Your task to perform on an android device: change text size in settings app Image 0: 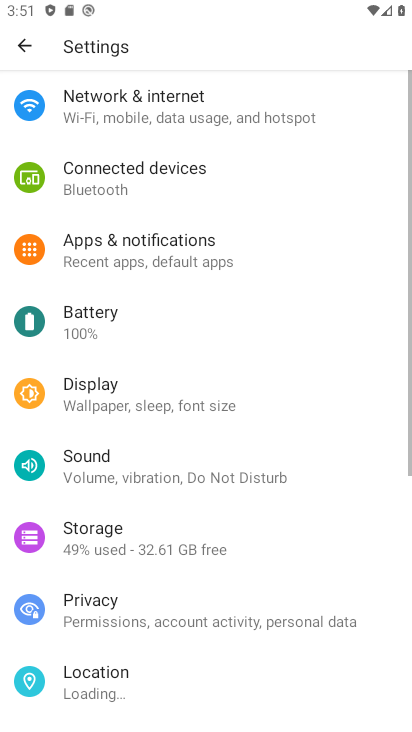
Step 0: drag from (304, 701) to (232, 176)
Your task to perform on an android device: change text size in settings app Image 1: 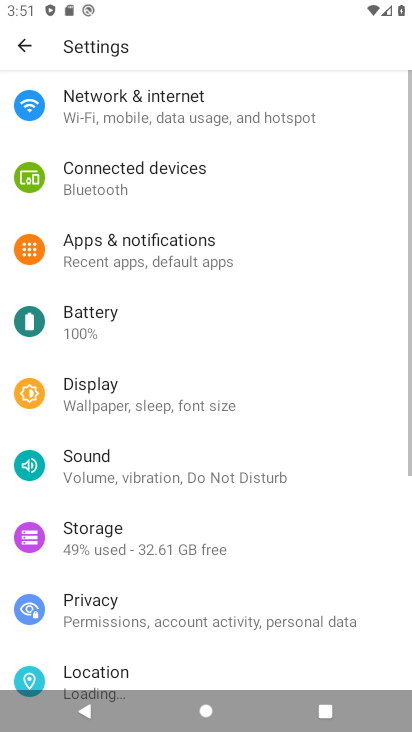
Step 1: click (16, 48)
Your task to perform on an android device: change text size in settings app Image 2: 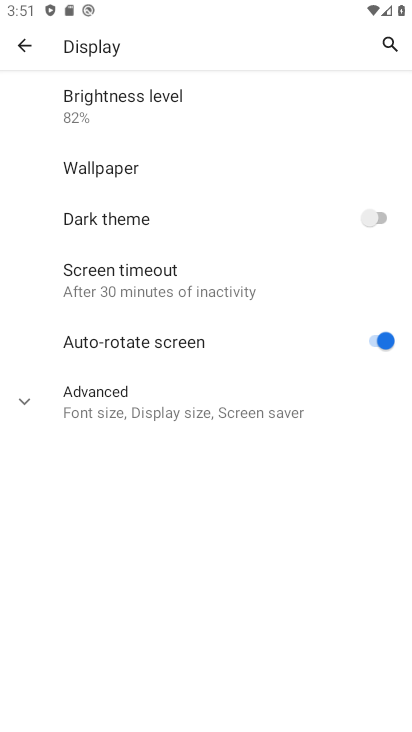
Step 2: press back button
Your task to perform on an android device: change text size in settings app Image 3: 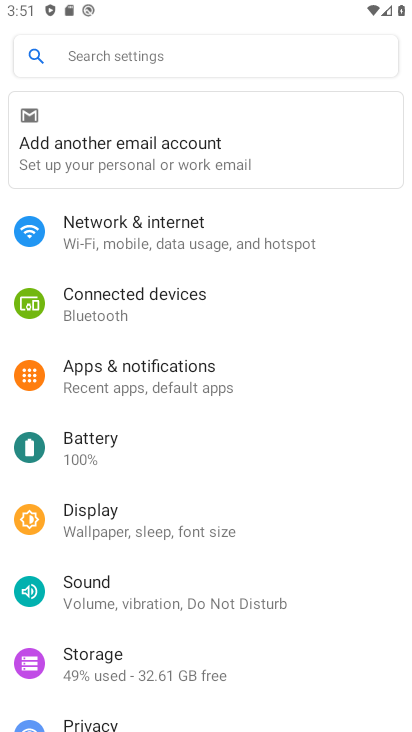
Step 3: click (21, 35)
Your task to perform on an android device: change text size in settings app Image 4: 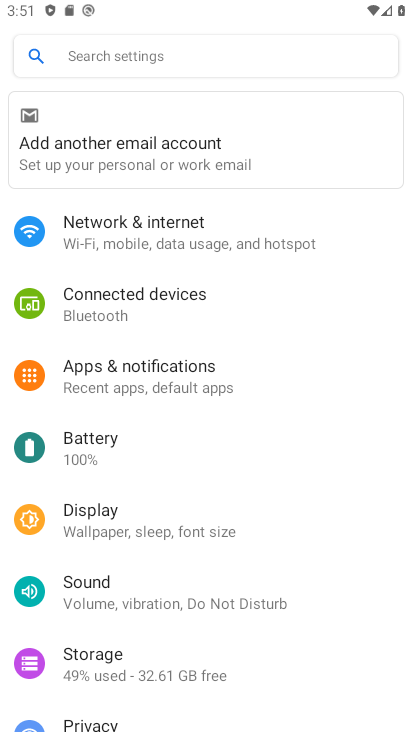
Step 4: drag from (132, 591) to (92, 258)
Your task to perform on an android device: change text size in settings app Image 5: 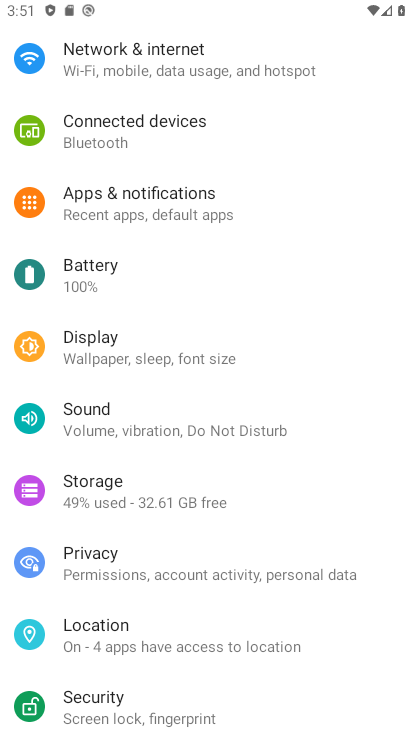
Step 5: drag from (198, 595) to (228, 299)
Your task to perform on an android device: change text size in settings app Image 6: 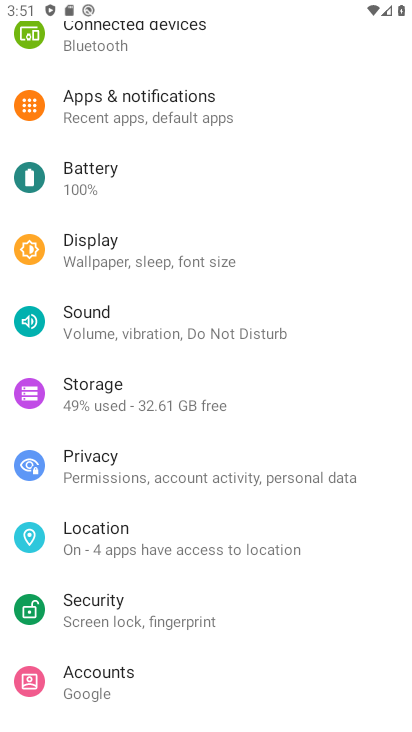
Step 6: drag from (134, 377) to (134, 196)
Your task to perform on an android device: change text size in settings app Image 7: 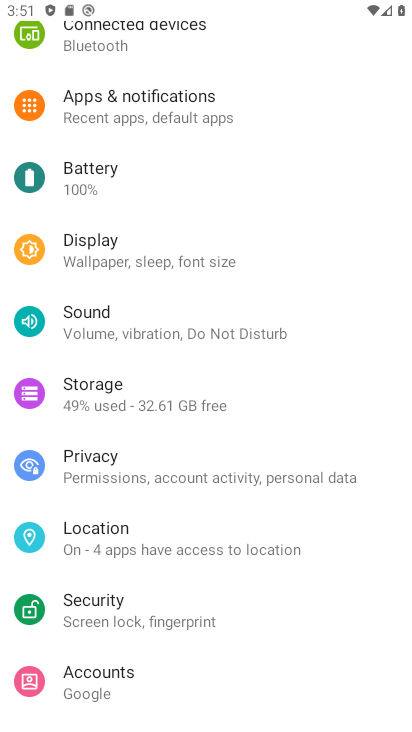
Step 7: drag from (236, 594) to (260, 231)
Your task to perform on an android device: change text size in settings app Image 8: 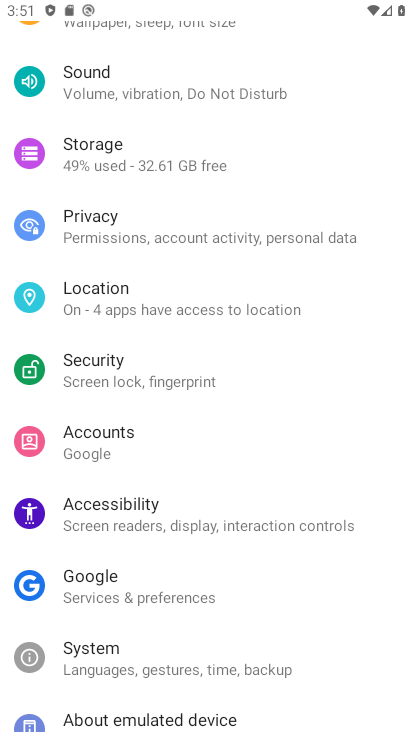
Step 8: drag from (274, 506) to (270, 215)
Your task to perform on an android device: change text size in settings app Image 9: 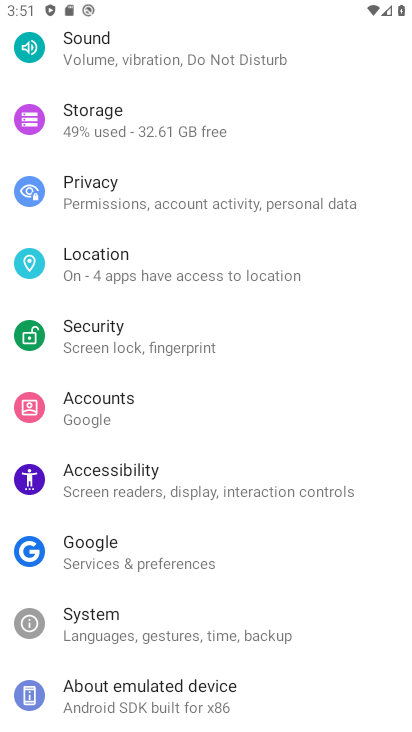
Step 9: drag from (115, 189) to (121, 587)
Your task to perform on an android device: change text size in settings app Image 10: 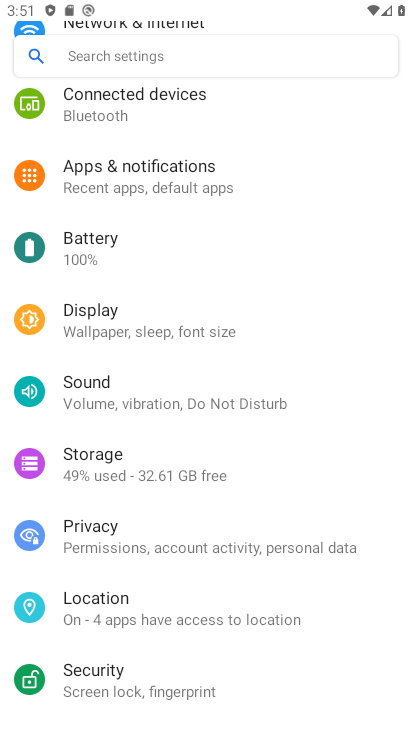
Step 10: click (109, 314)
Your task to perform on an android device: change text size in settings app Image 11: 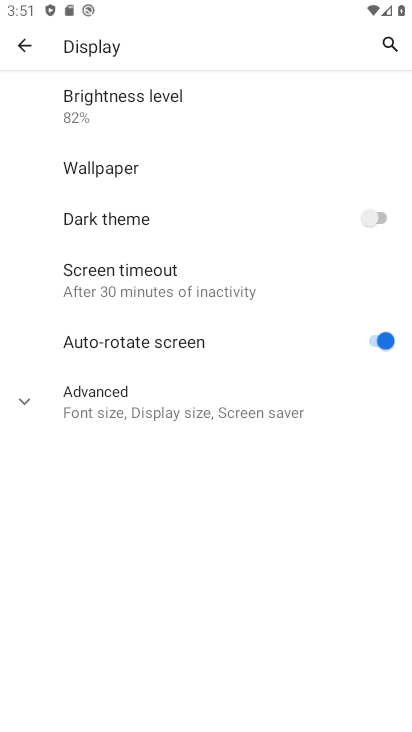
Step 11: click (106, 402)
Your task to perform on an android device: change text size in settings app Image 12: 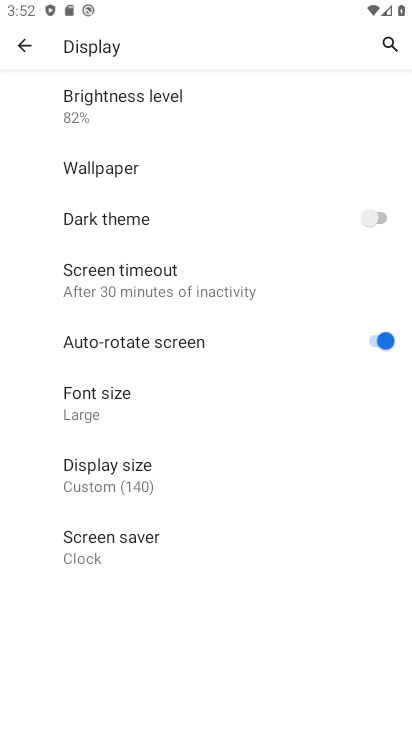
Step 12: click (85, 399)
Your task to perform on an android device: change text size in settings app Image 13: 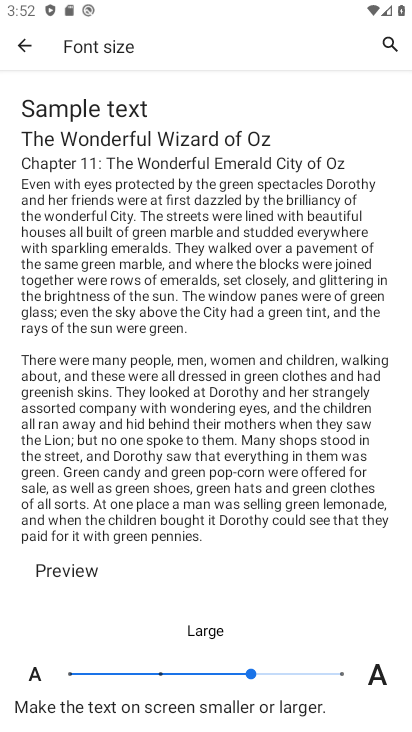
Step 13: click (157, 668)
Your task to perform on an android device: change text size in settings app Image 14: 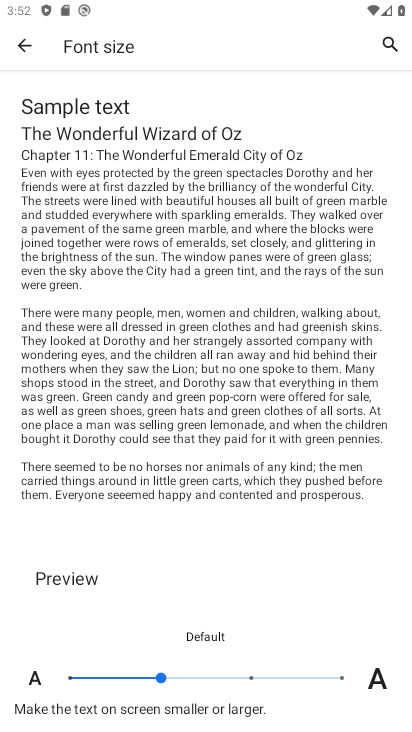
Step 14: press back button
Your task to perform on an android device: change text size in settings app Image 15: 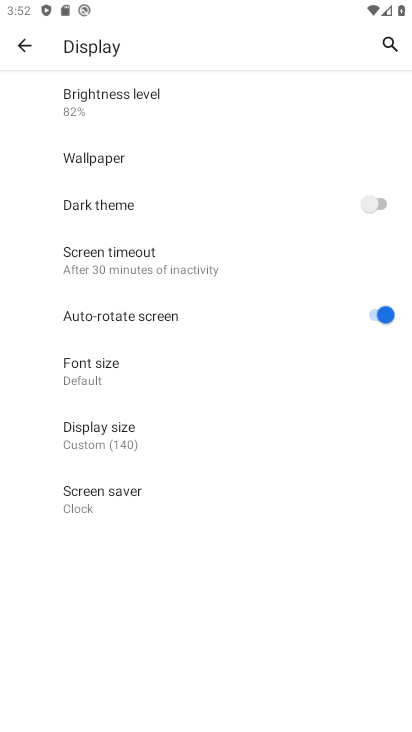
Step 15: click (21, 41)
Your task to perform on an android device: change text size in settings app Image 16: 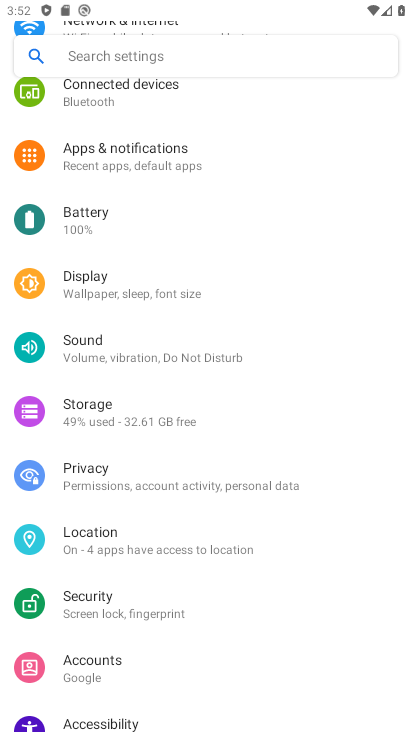
Step 16: click (93, 277)
Your task to perform on an android device: change text size in settings app Image 17: 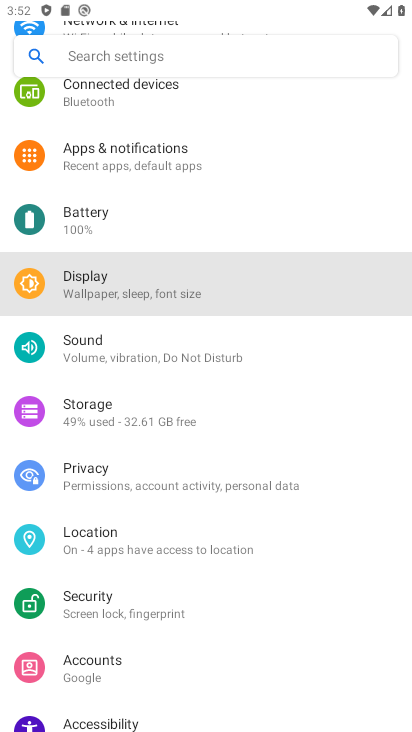
Step 17: click (93, 276)
Your task to perform on an android device: change text size in settings app Image 18: 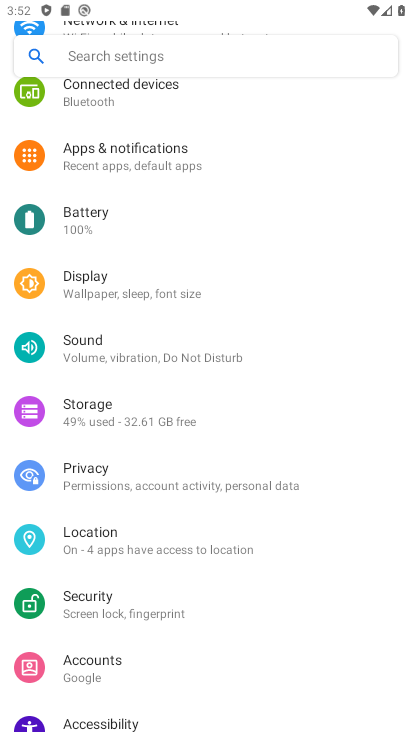
Step 18: click (93, 276)
Your task to perform on an android device: change text size in settings app Image 19: 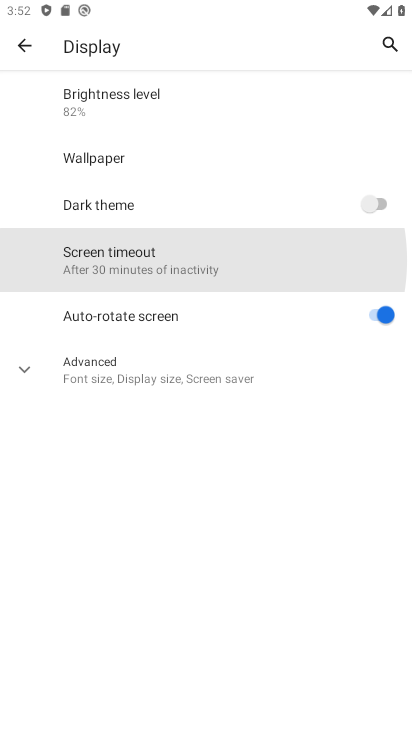
Step 19: click (93, 276)
Your task to perform on an android device: change text size in settings app Image 20: 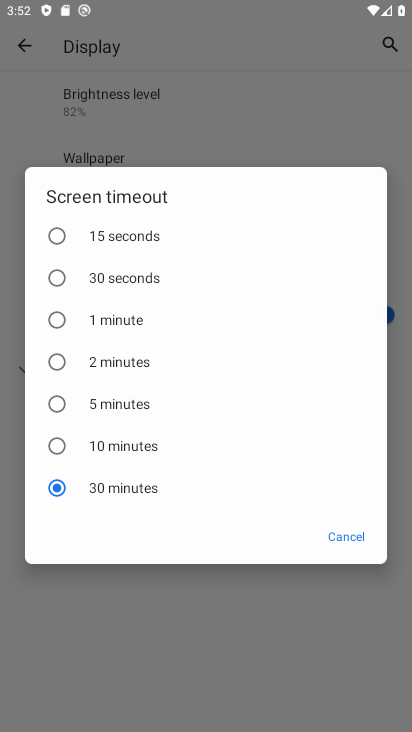
Step 20: click (93, 276)
Your task to perform on an android device: change text size in settings app Image 21: 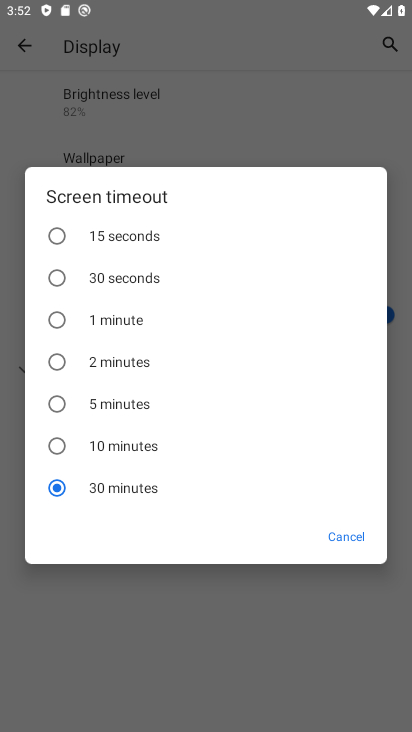
Step 21: click (93, 276)
Your task to perform on an android device: change text size in settings app Image 22: 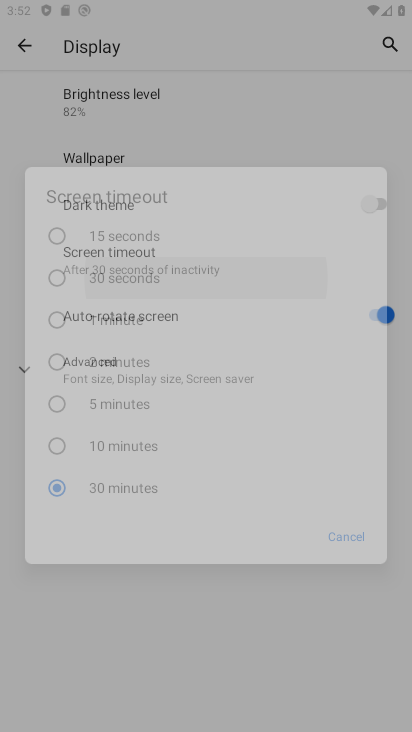
Step 22: click (92, 275)
Your task to perform on an android device: change text size in settings app Image 23: 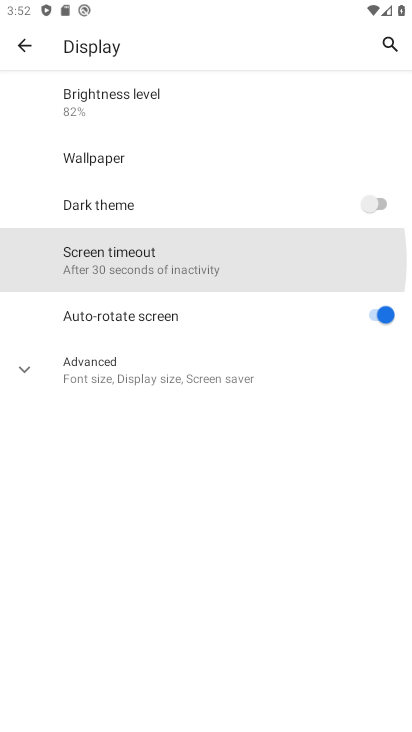
Step 23: click (91, 275)
Your task to perform on an android device: change text size in settings app Image 24: 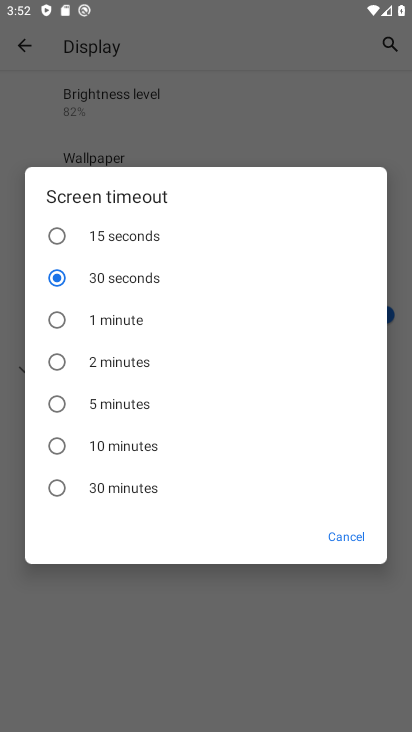
Step 24: click (347, 530)
Your task to perform on an android device: change text size in settings app Image 25: 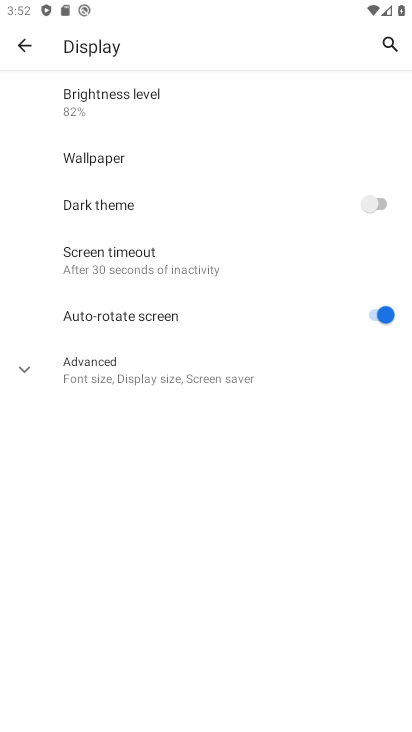
Step 25: click (19, 45)
Your task to perform on an android device: change text size in settings app Image 26: 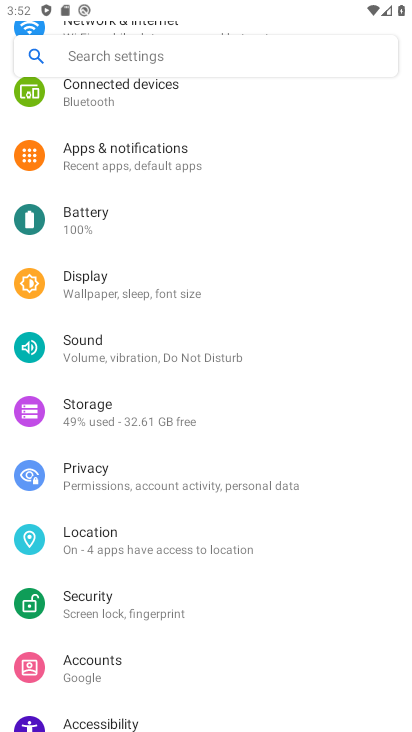
Step 26: click (91, 277)
Your task to perform on an android device: change text size in settings app Image 27: 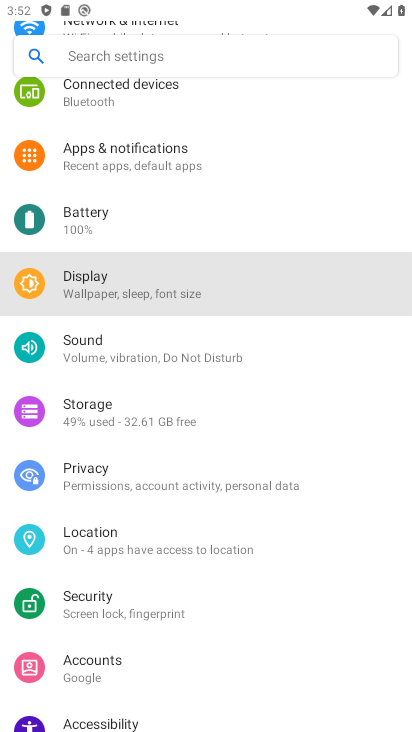
Step 27: click (91, 277)
Your task to perform on an android device: change text size in settings app Image 28: 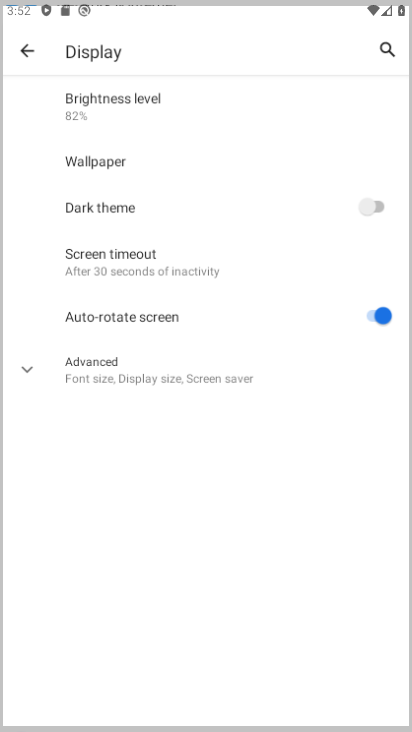
Step 28: click (91, 277)
Your task to perform on an android device: change text size in settings app Image 29: 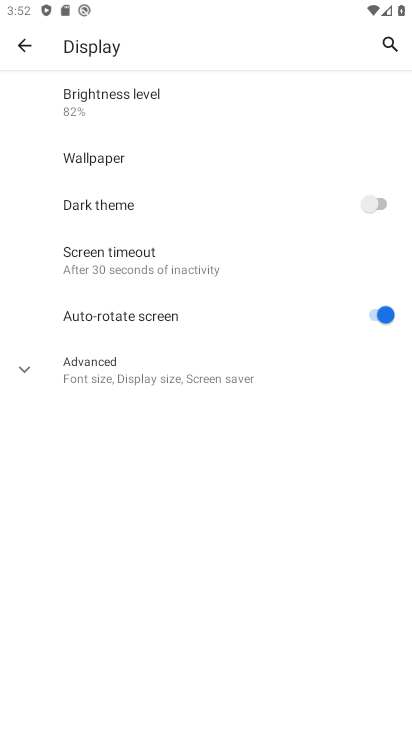
Step 29: click (91, 277)
Your task to perform on an android device: change text size in settings app Image 30: 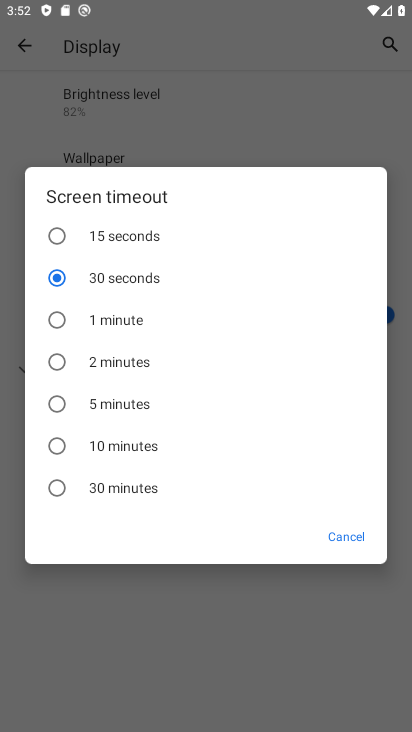
Step 30: click (352, 535)
Your task to perform on an android device: change text size in settings app Image 31: 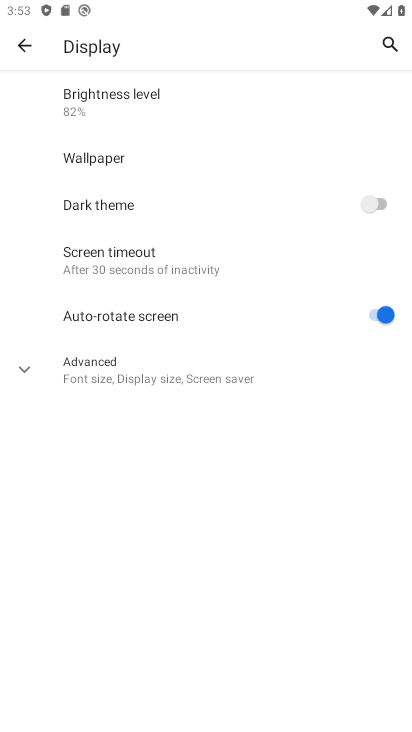
Step 31: click (116, 363)
Your task to perform on an android device: change text size in settings app Image 32: 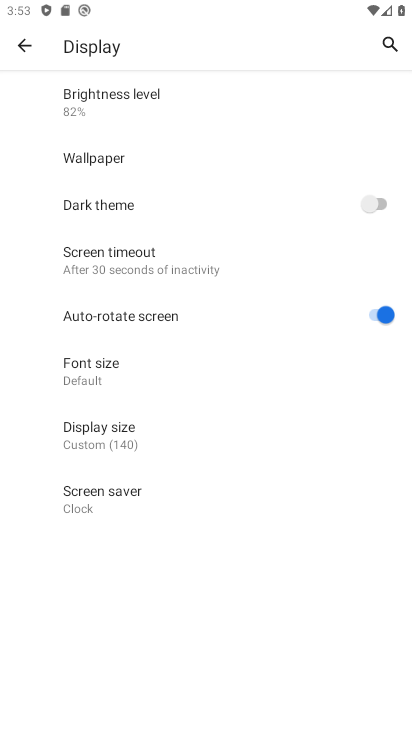
Step 32: click (73, 371)
Your task to perform on an android device: change text size in settings app Image 33: 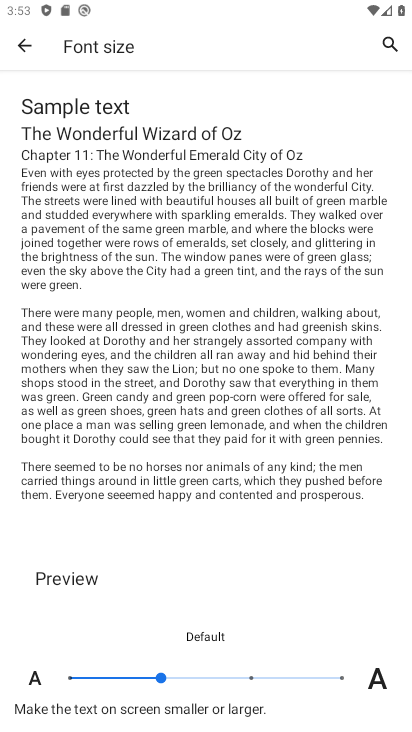
Step 33: click (249, 676)
Your task to perform on an android device: change text size in settings app Image 34: 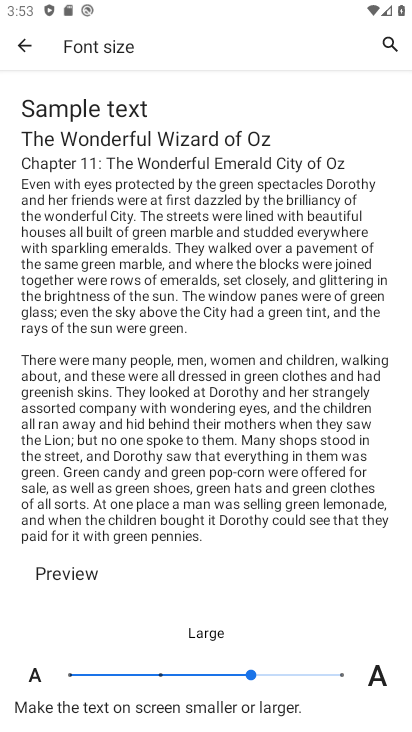
Step 34: task complete